Your task to perform on an android device: Search for pizza restaurants on Maps Image 0: 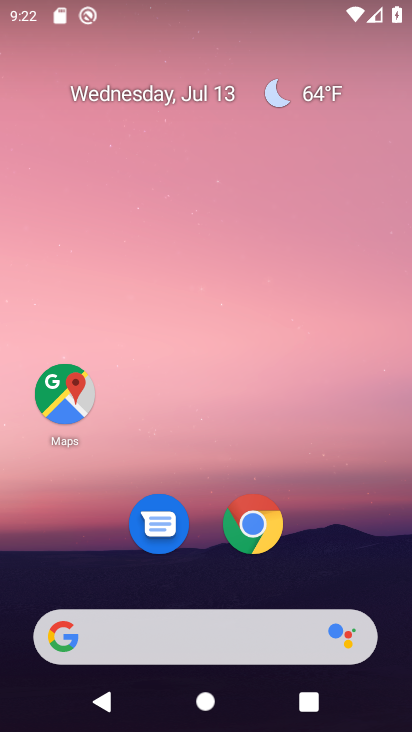
Step 0: drag from (209, 615) to (211, 80)
Your task to perform on an android device: Search for pizza restaurants on Maps Image 1: 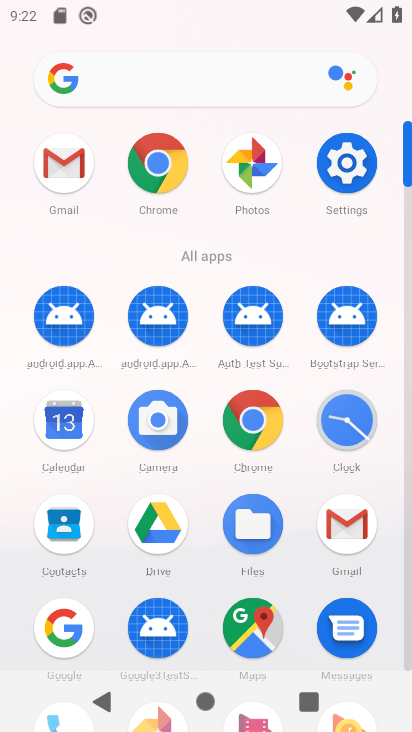
Step 1: click (264, 637)
Your task to perform on an android device: Search for pizza restaurants on Maps Image 2: 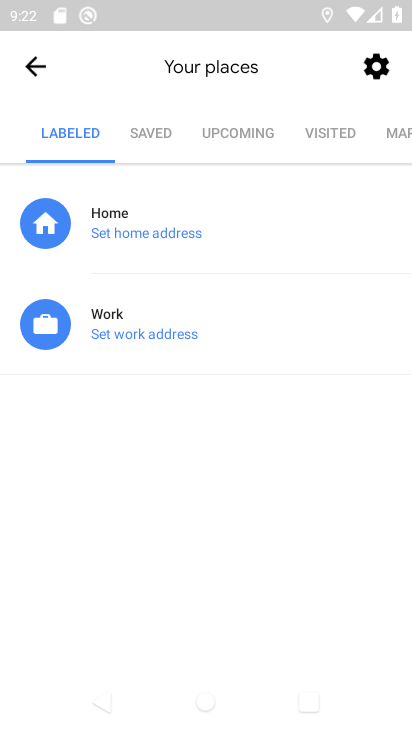
Step 2: press home button
Your task to perform on an android device: Search for pizza restaurants on Maps Image 3: 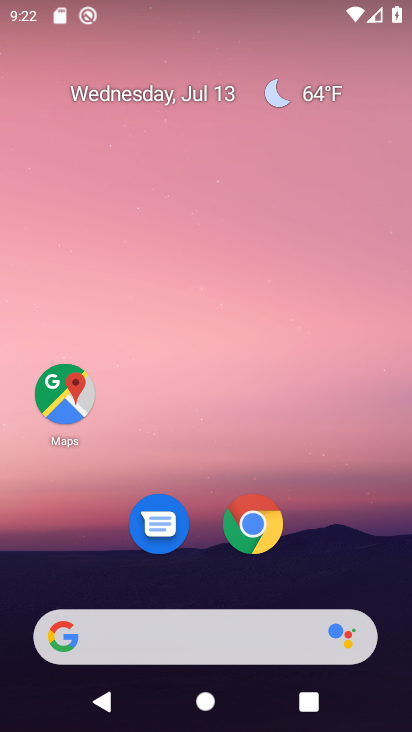
Step 3: click (53, 399)
Your task to perform on an android device: Search for pizza restaurants on Maps Image 4: 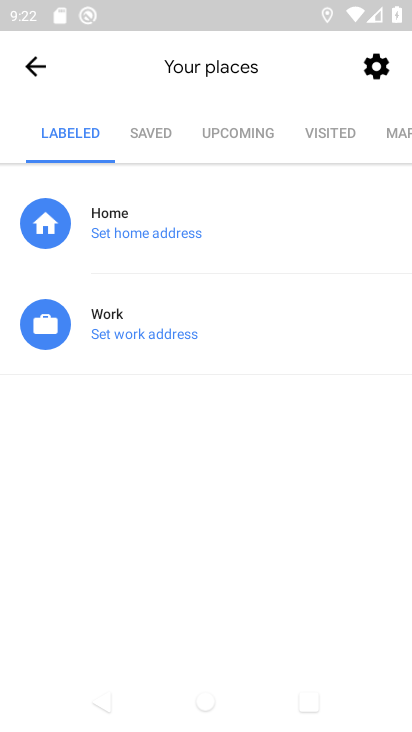
Step 4: click (44, 54)
Your task to perform on an android device: Search for pizza restaurants on Maps Image 5: 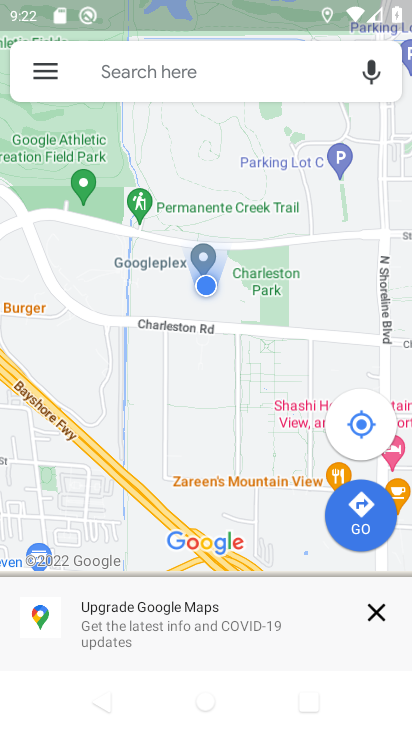
Step 5: click (163, 63)
Your task to perform on an android device: Search for pizza restaurants on Maps Image 6: 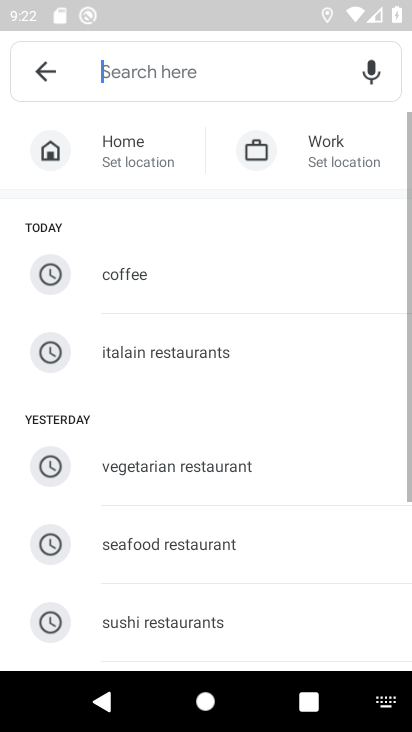
Step 6: drag from (193, 493) to (184, 74)
Your task to perform on an android device: Search for pizza restaurants on Maps Image 7: 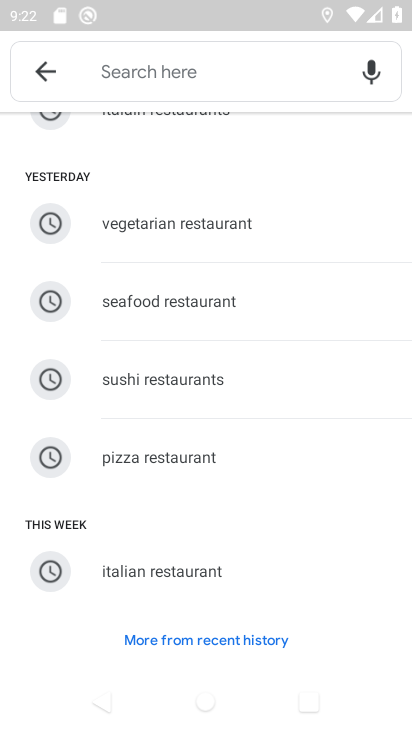
Step 7: click (214, 465)
Your task to perform on an android device: Search for pizza restaurants on Maps Image 8: 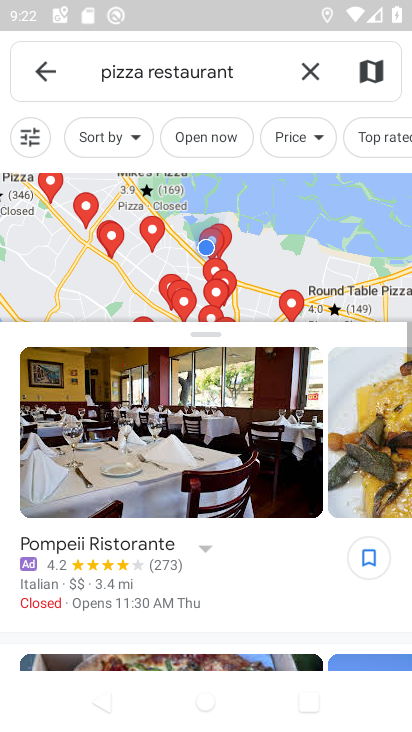
Step 8: task complete